Your task to perform on an android device: turn off sleep mode Image 0: 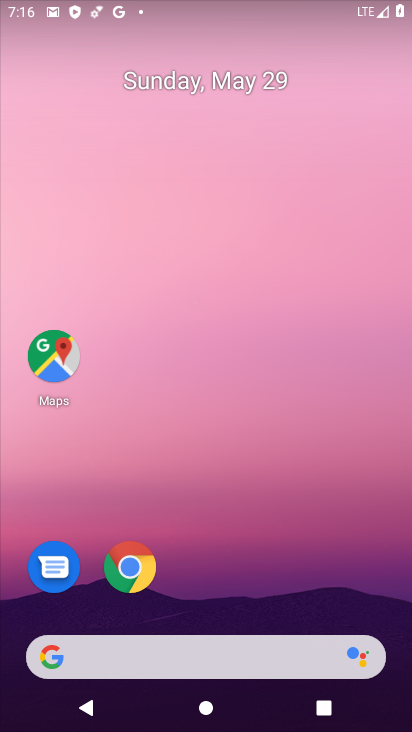
Step 0: drag from (177, 608) to (219, 190)
Your task to perform on an android device: turn off sleep mode Image 1: 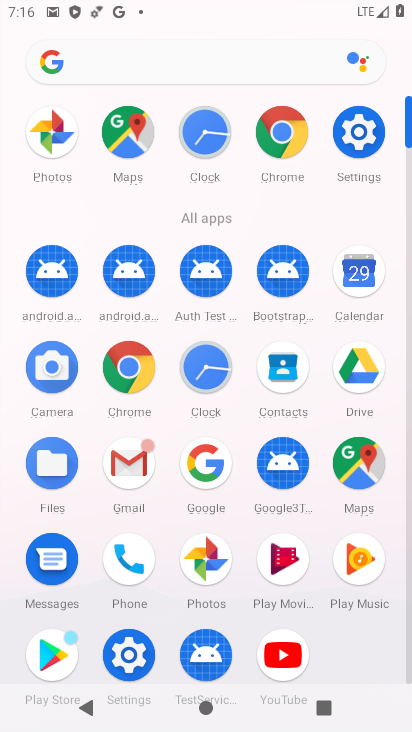
Step 1: click (355, 130)
Your task to perform on an android device: turn off sleep mode Image 2: 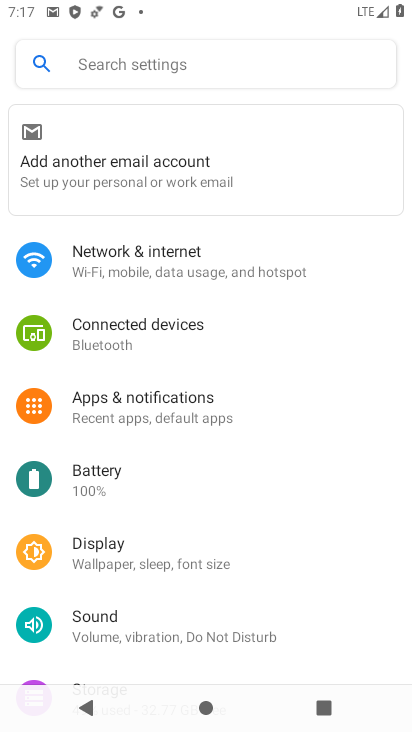
Step 2: task complete